Your task to perform on an android device: turn off airplane mode Image 0: 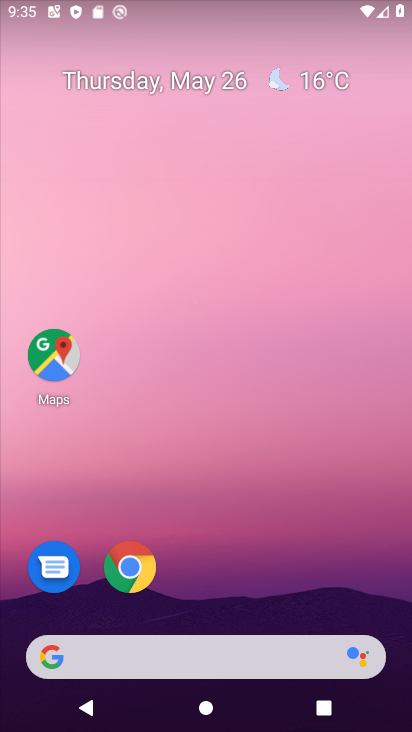
Step 0: drag from (392, 704) to (368, 172)
Your task to perform on an android device: turn off airplane mode Image 1: 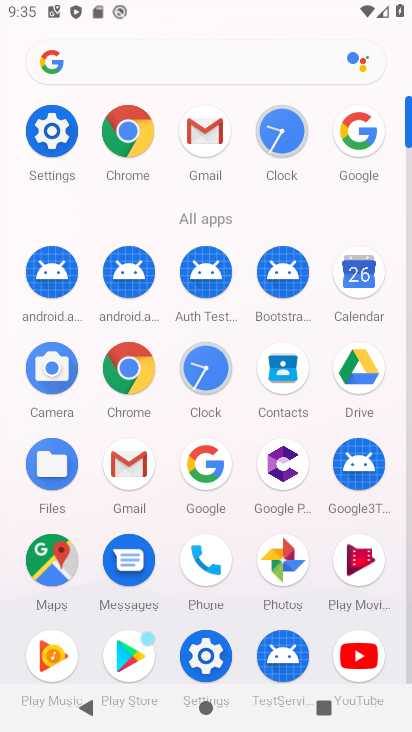
Step 1: click (47, 130)
Your task to perform on an android device: turn off airplane mode Image 2: 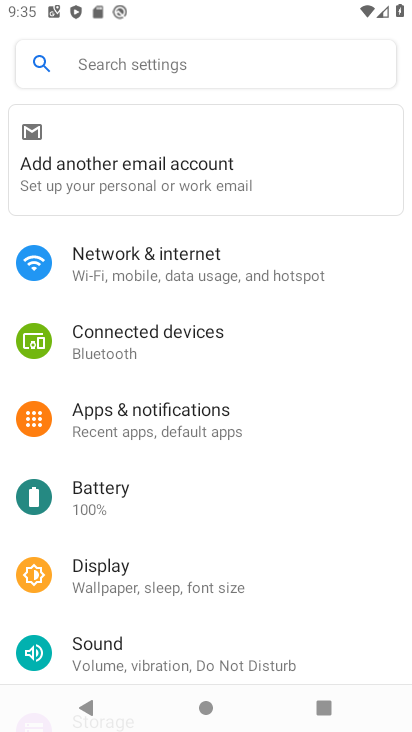
Step 2: click (110, 271)
Your task to perform on an android device: turn off airplane mode Image 3: 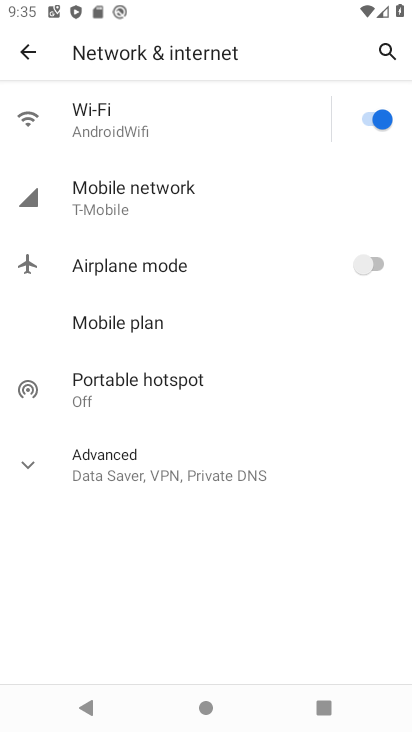
Step 3: task complete